Your task to perform on an android device: check android version Image 0: 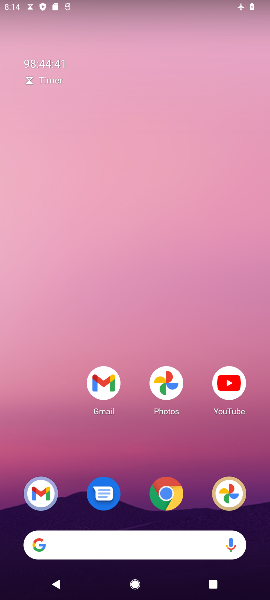
Step 0: drag from (142, 521) to (171, 172)
Your task to perform on an android device: check android version Image 1: 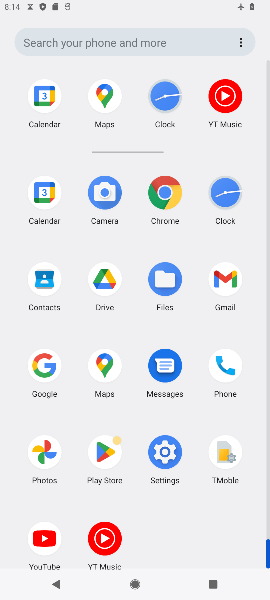
Step 1: click (161, 449)
Your task to perform on an android device: check android version Image 2: 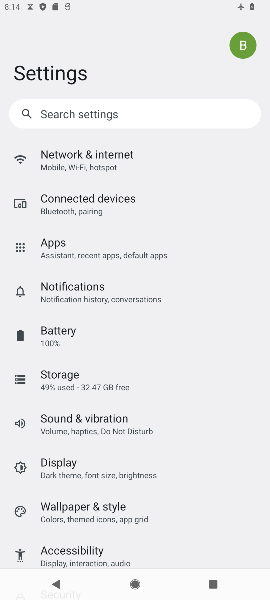
Step 2: drag from (128, 496) to (182, 152)
Your task to perform on an android device: check android version Image 3: 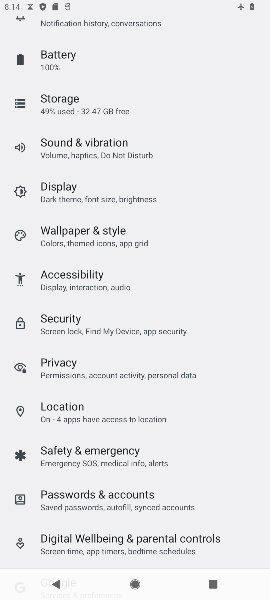
Step 3: drag from (99, 493) to (124, 108)
Your task to perform on an android device: check android version Image 4: 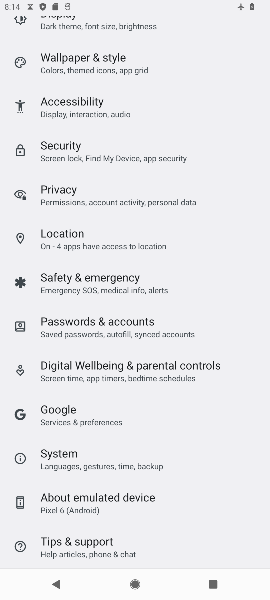
Step 4: drag from (78, 532) to (124, 97)
Your task to perform on an android device: check android version Image 5: 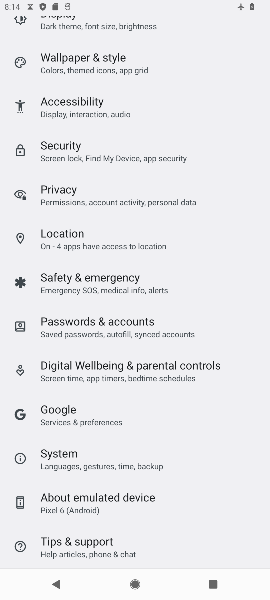
Step 5: click (74, 511)
Your task to perform on an android device: check android version Image 6: 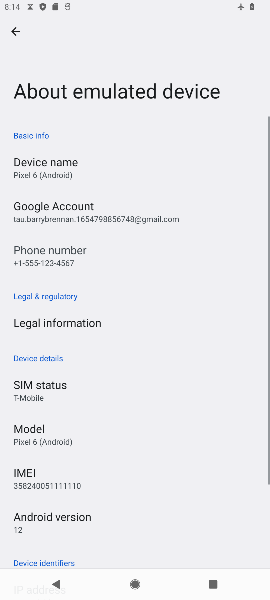
Step 6: click (72, 527)
Your task to perform on an android device: check android version Image 7: 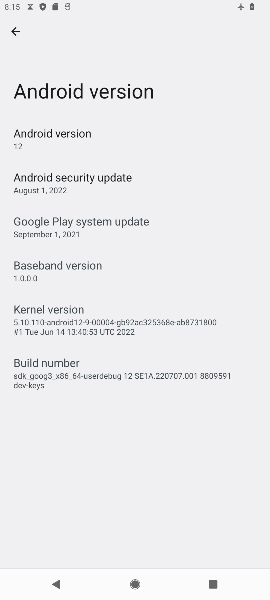
Step 7: click (65, 137)
Your task to perform on an android device: check android version Image 8: 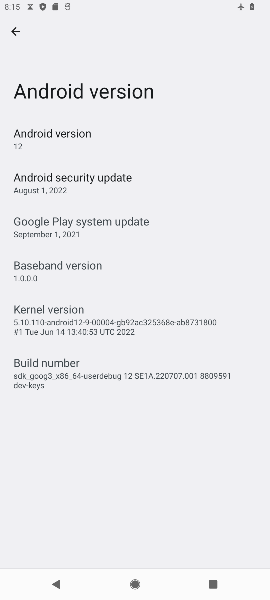
Step 8: task complete